Your task to perform on an android device: Go to settings Image 0: 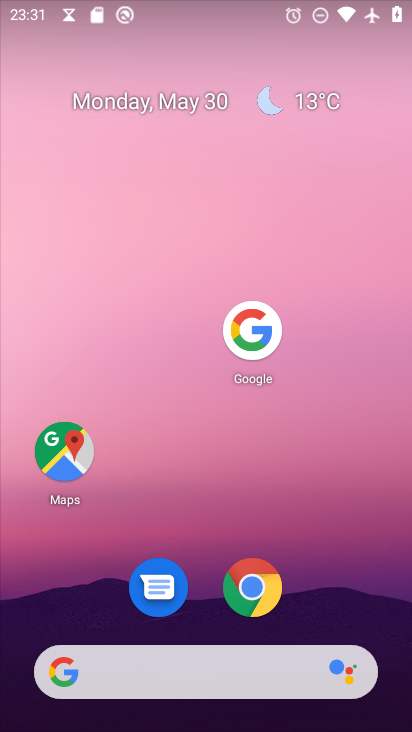
Step 0: press home button
Your task to perform on an android device: Go to settings Image 1: 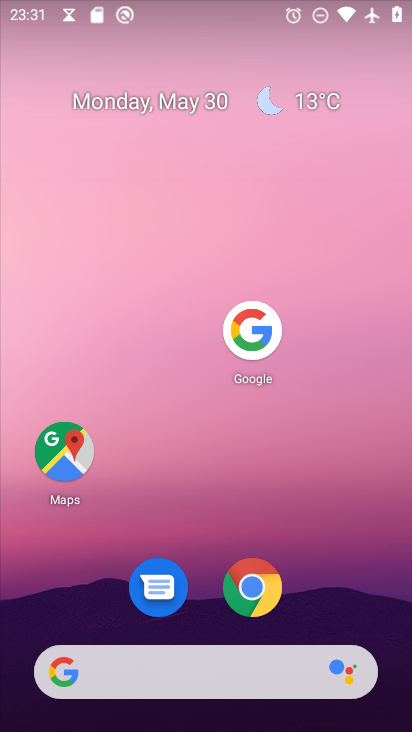
Step 1: drag from (252, 537) to (305, 238)
Your task to perform on an android device: Go to settings Image 2: 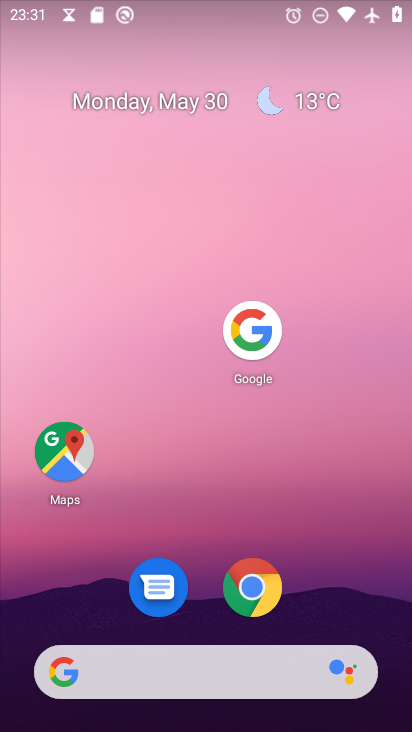
Step 2: drag from (176, 674) to (358, 81)
Your task to perform on an android device: Go to settings Image 3: 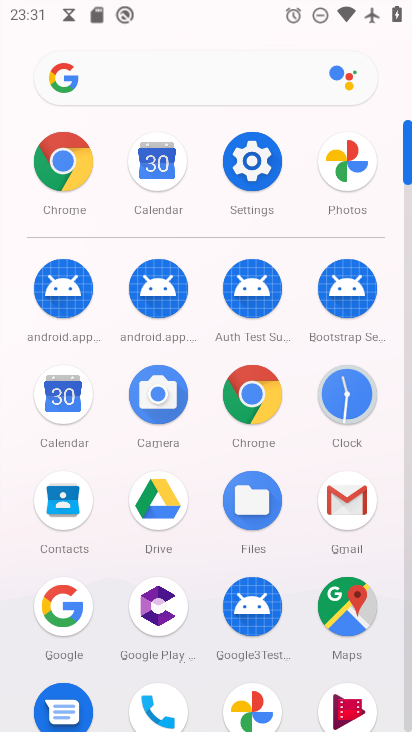
Step 3: click (259, 163)
Your task to perform on an android device: Go to settings Image 4: 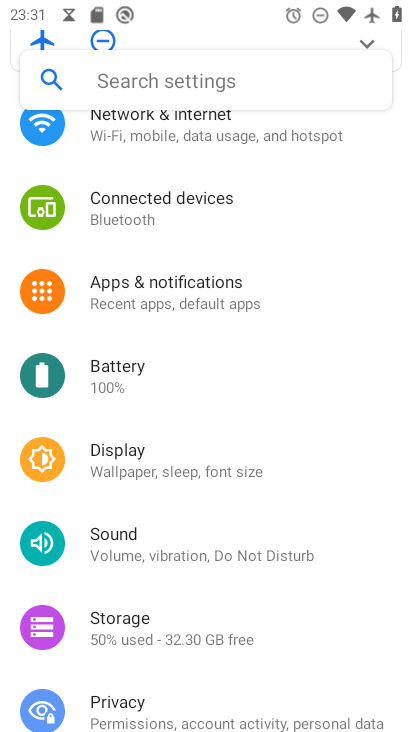
Step 4: task complete